Your task to perform on an android device: Search for Mexican restaurants on Maps Image 0: 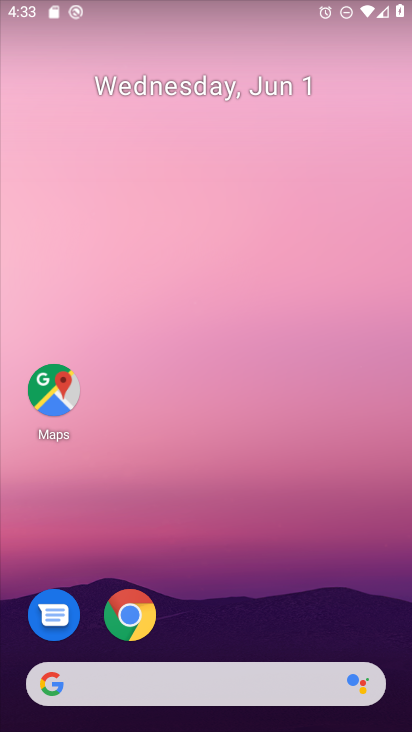
Step 0: drag from (226, 632) to (255, 134)
Your task to perform on an android device: Search for Mexican restaurants on Maps Image 1: 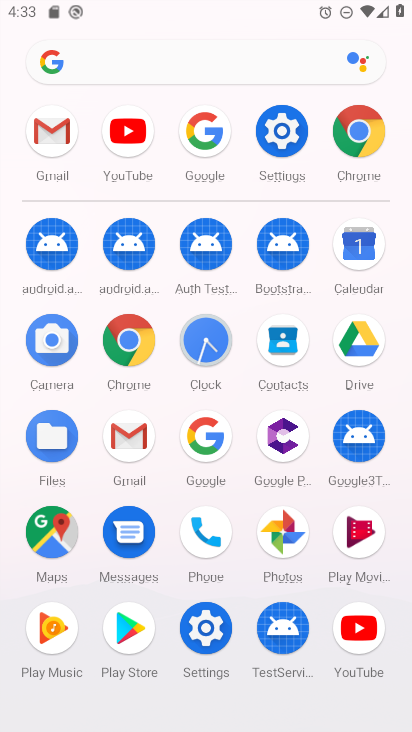
Step 1: click (52, 529)
Your task to perform on an android device: Search for Mexican restaurants on Maps Image 2: 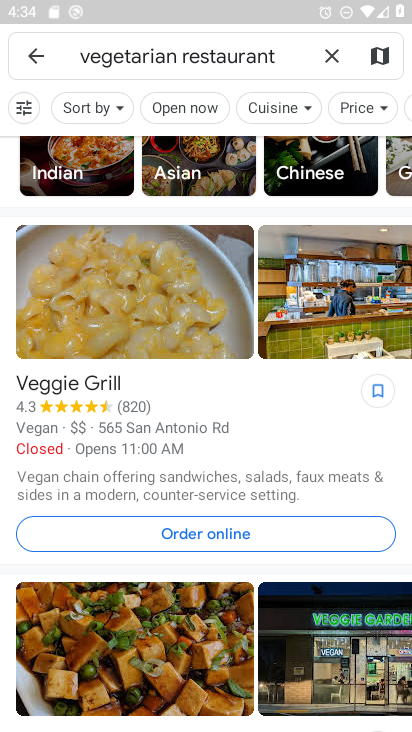
Step 2: task complete